Your task to perform on an android device: open a bookmark in the chrome app Image 0: 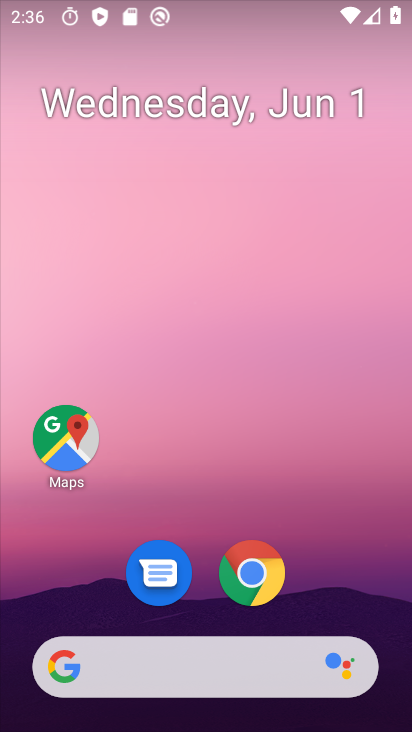
Step 0: click (248, 600)
Your task to perform on an android device: open a bookmark in the chrome app Image 1: 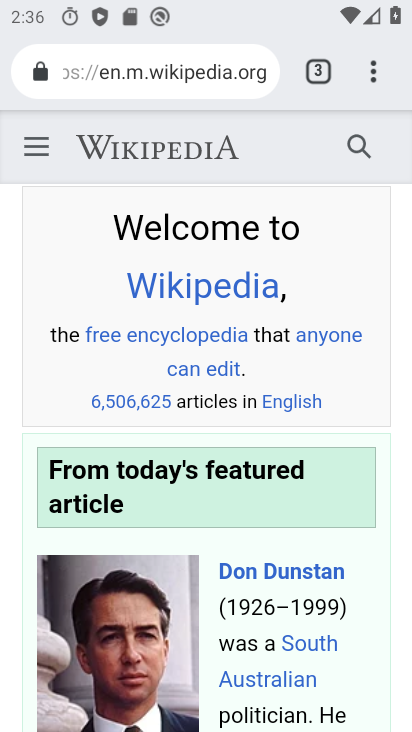
Step 1: task complete